Your task to perform on an android device: allow notifications from all sites in the chrome app Image 0: 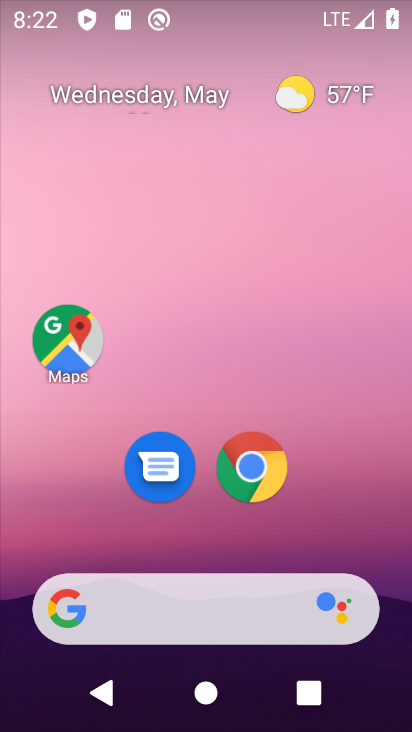
Step 0: drag from (283, 380) to (155, 10)
Your task to perform on an android device: allow notifications from all sites in the chrome app Image 1: 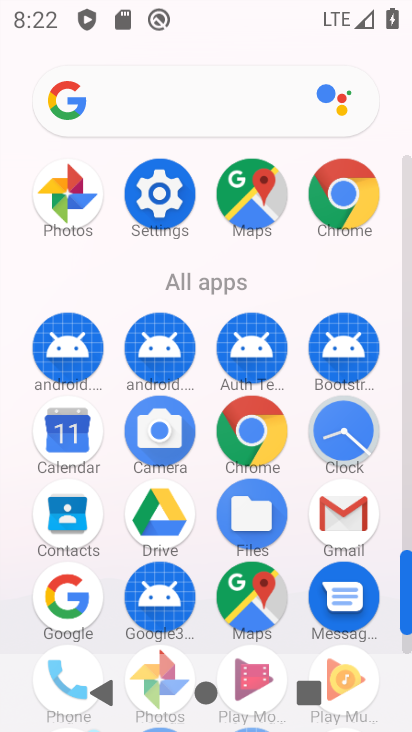
Step 1: drag from (235, 442) to (205, 66)
Your task to perform on an android device: allow notifications from all sites in the chrome app Image 2: 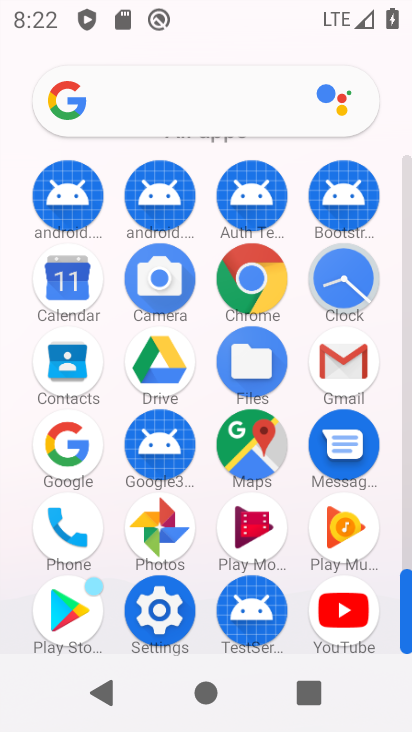
Step 2: drag from (243, 440) to (270, 42)
Your task to perform on an android device: allow notifications from all sites in the chrome app Image 3: 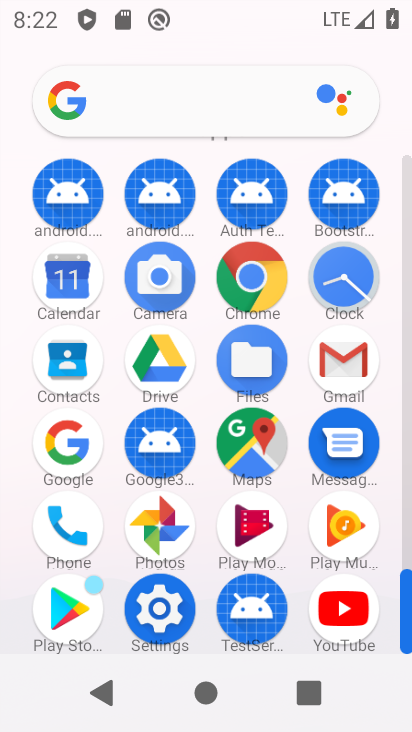
Step 3: drag from (182, 530) to (167, 322)
Your task to perform on an android device: allow notifications from all sites in the chrome app Image 4: 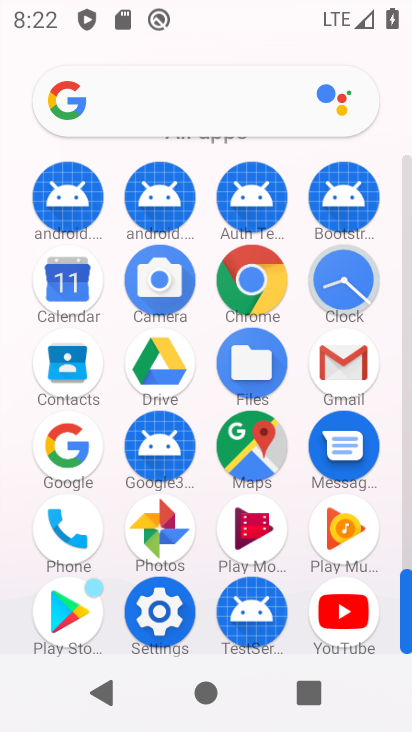
Step 4: drag from (237, 582) to (230, 8)
Your task to perform on an android device: allow notifications from all sites in the chrome app Image 5: 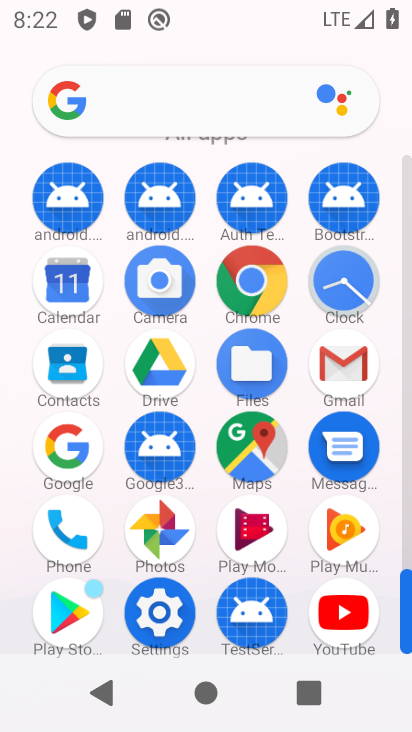
Step 5: drag from (217, 462) to (201, 67)
Your task to perform on an android device: allow notifications from all sites in the chrome app Image 6: 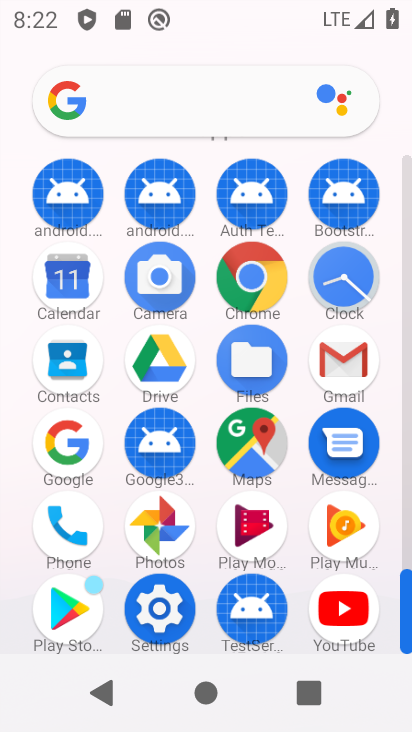
Step 6: drag from (215, 556) to (181, 69)
Your task to perform on an android device: allow notifications from all sites in the chrome app Image 7: 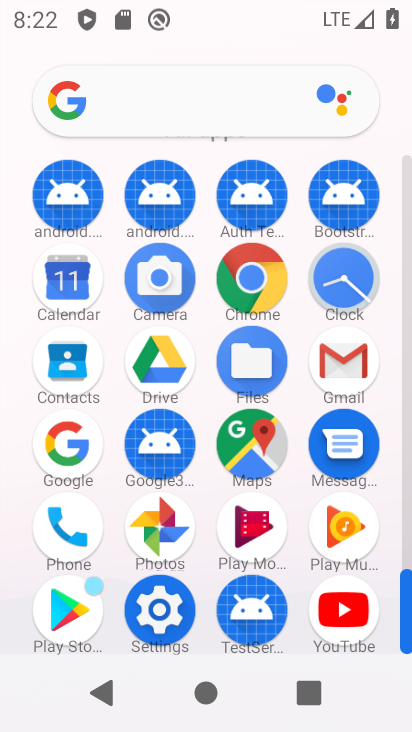
Step 7: drag from (218, 444) to (178, 137)
Your task to perform on an android device: allow notifications from all sites in the chrome app Image 8: 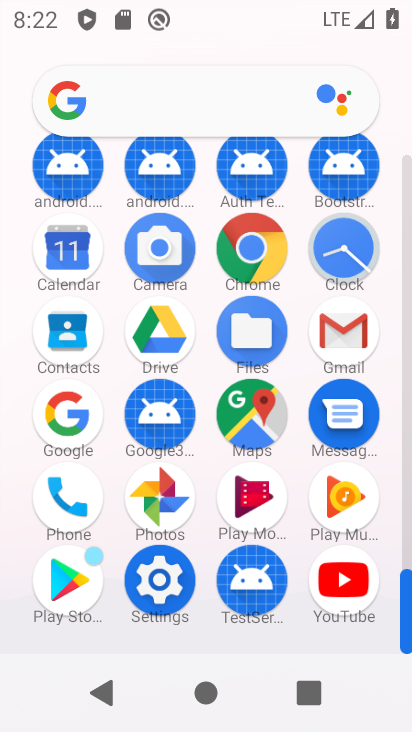
Step 8: drag from (252, 418) to (297, 3)
Your task to perform on an android device: allow notifications from all sites in the chrome app Image 9: 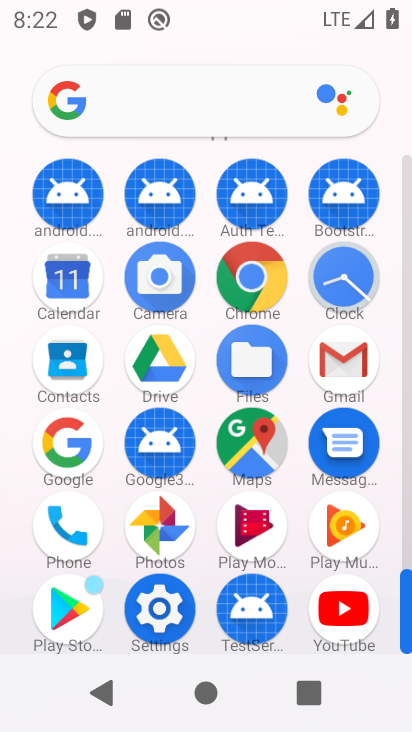
Step 9: click (262, 274)
Your task to perform on an android device: allow notifications from all sites in the chrome app Image 10: 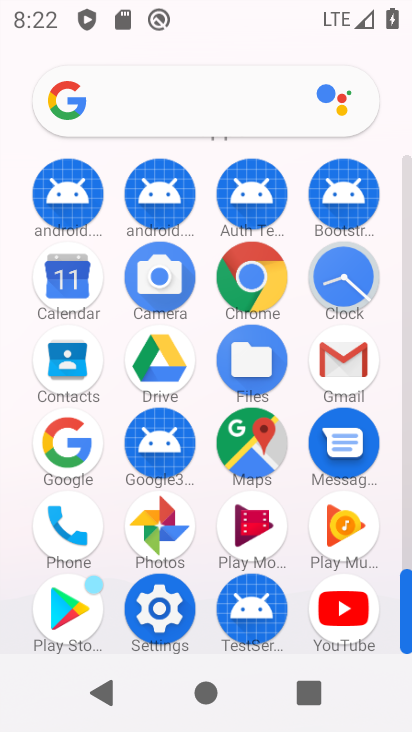
Step 10: click (262, 274)
Your task to perform on an android device: allow notifications from all sites in the chrome app Image 11: 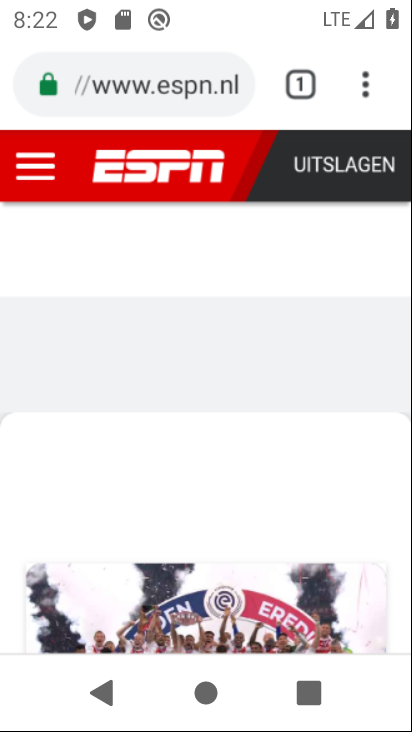
Step 11: click (262, 276)
Your task to perform on an android device: allow notifications from all sites in the chrome app Image 12: 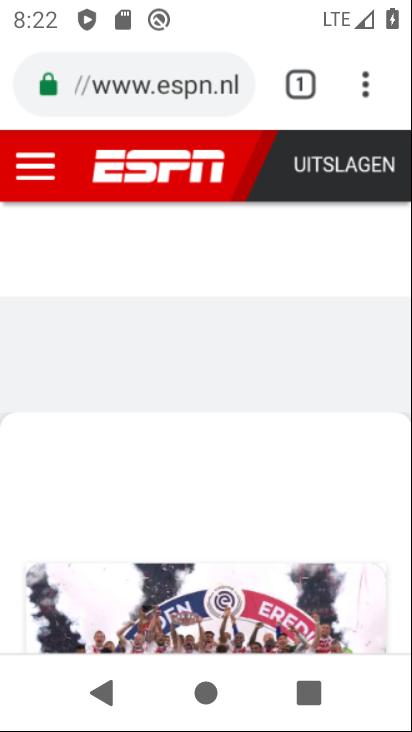
Step 12: drag from (358, 68) to (254, 568)
Your task to perform on an android device: allow notifications from all sites in the chrome app Image 13: 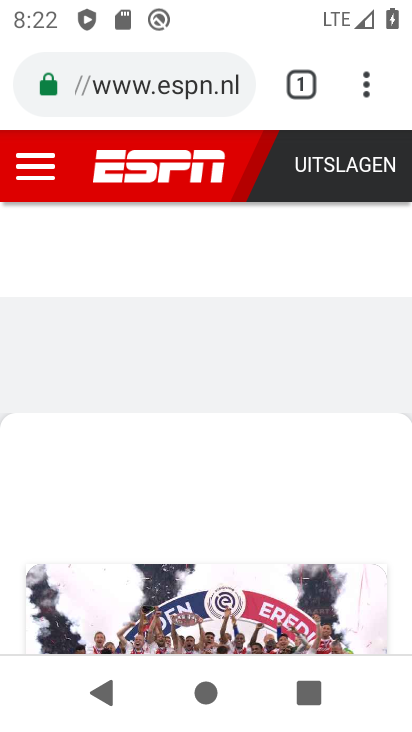
Step 13: drag from (223, 478) to (176, 37)
Your task to perform on an android device: allow notifications from all sites in the chrome app Image 14: 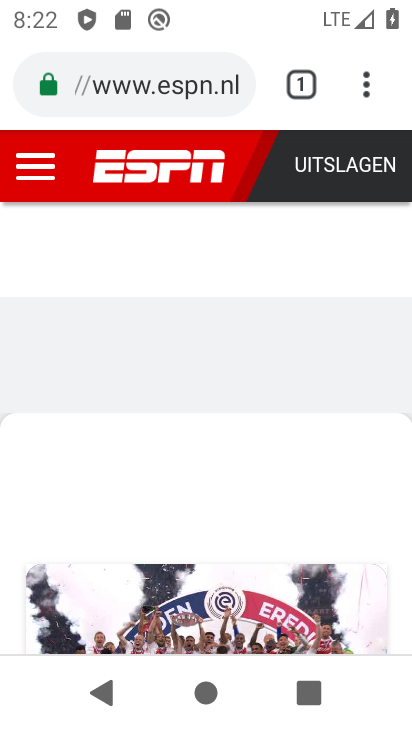
Step 14: drag from (216, 474) to (167, 9)
Your task to perform on an android device: allow notifications from all sites in the chrome app Image 15: 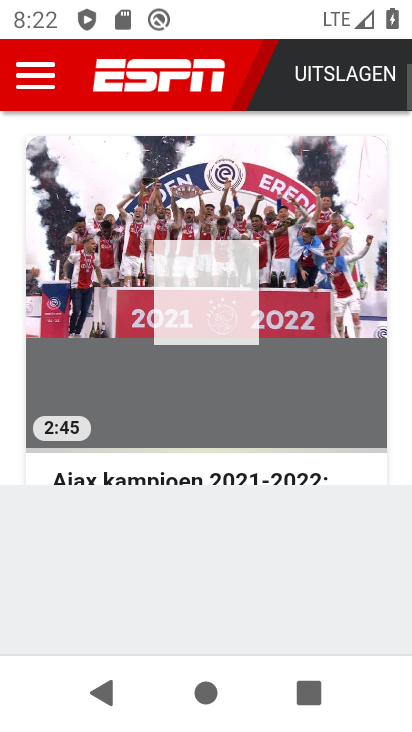
Step 15: drag from (220, 495) to (120, 52)
Your task to perform on an android device: allow notifications from all sites in the chrome app Image 16: 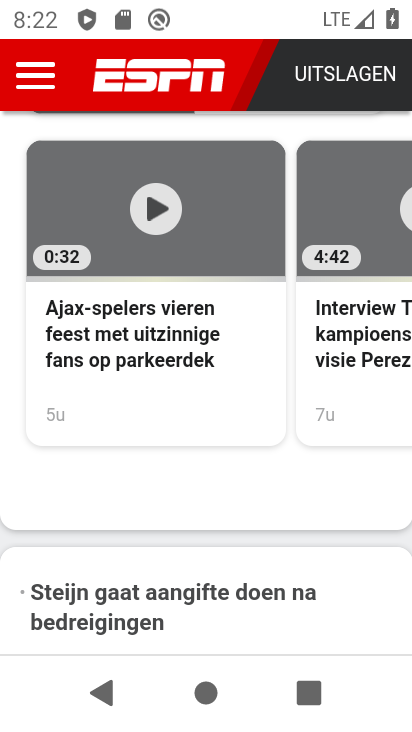
Step 16: press back button
Your task to perform on an android device: allow notifications from all sites in the chrome app Image 17: 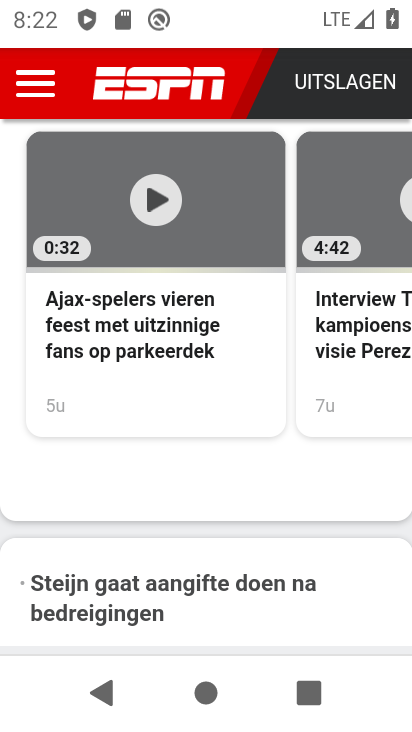
Step 17: press back button
Your task to perform on an android device: allow notifications from all sites in the chrome app Image 18: 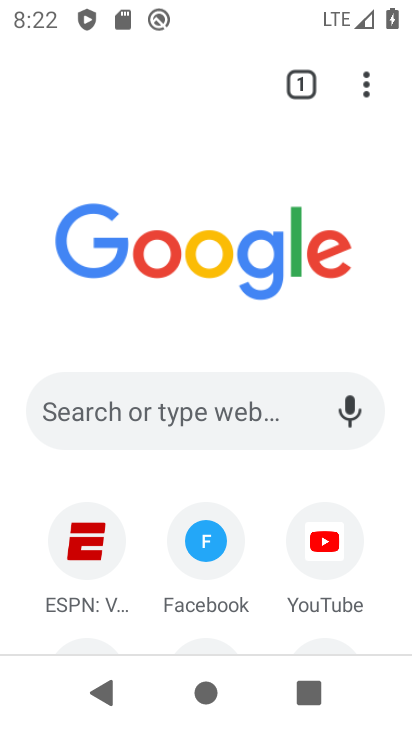
Step 18: press back button
Your task to perform on an android device: allow notifications from all sites in the chrome app Image 19: 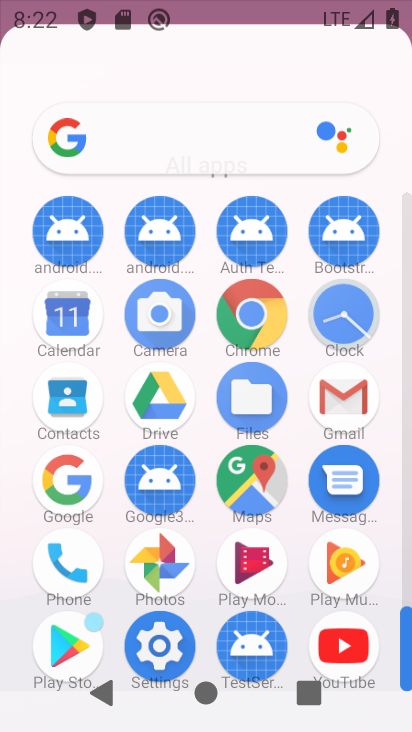
Step 19: press back button
Your task to perform on an android device: allow notifications from all sites in the chrome app Image 20: 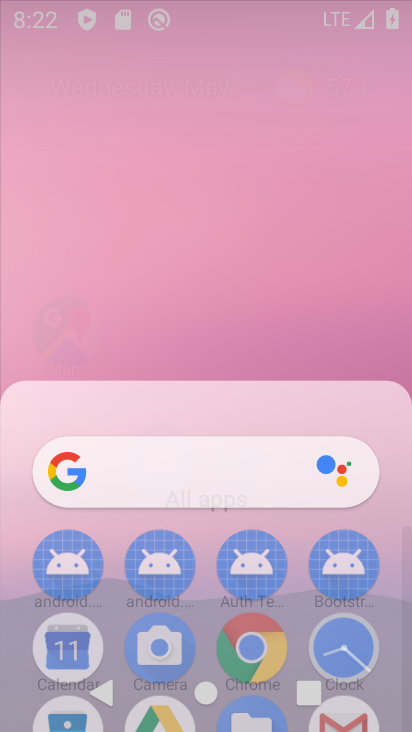
Step 20: click (357, 84)
Your task to perform on an android device: allow notifications from all sites in the chrome app Image 21: 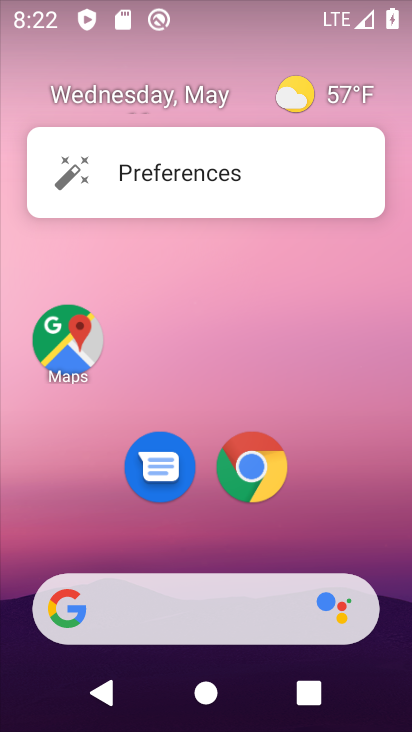
Step 21: click (263, 357)
Your task to perform on an android device: allow notifications from all sites in the chrome app Image 22: 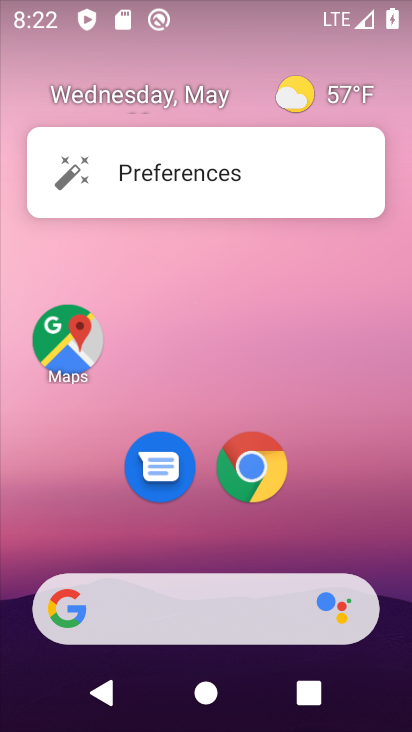
Step 22: drag from (263, 357) to (246, 313)
Your task to perform on an android device: allow notifications from all sites in the chrome app Image 23: 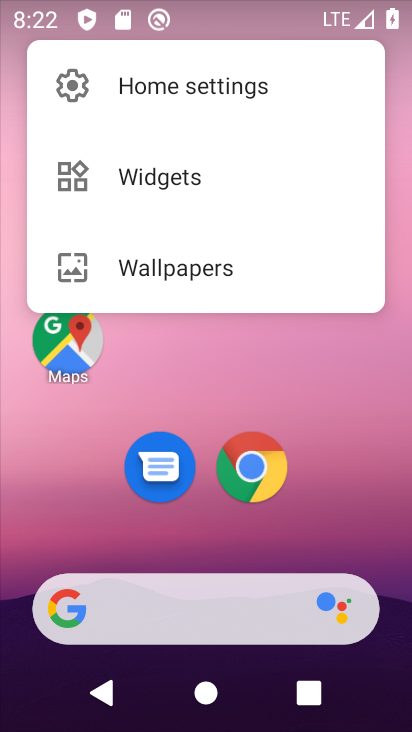
Step 23: click (305, 375)
Your task to perform on an android device: allow notifications from all sites in the chrome app Image 24: 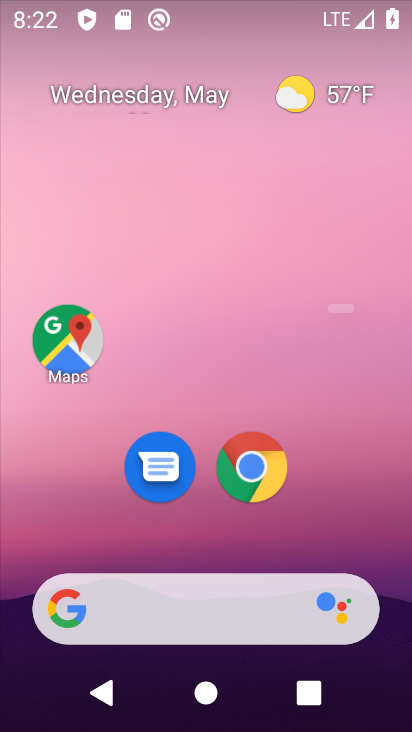
Step 24: click (300, 367)
Your task to perform on an android device: allow notifications from all sites in the chrome app Image 25: 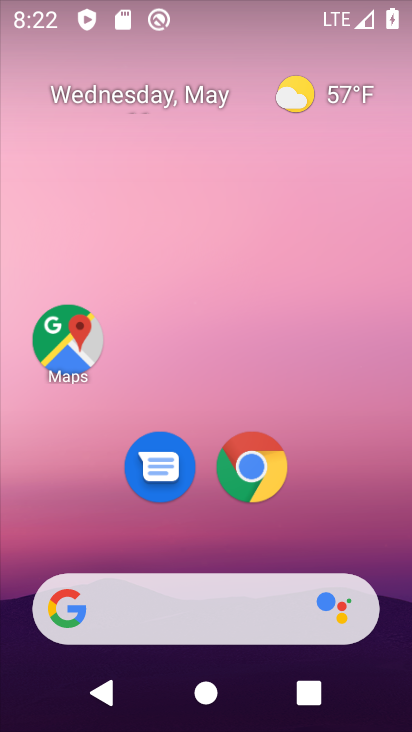
Step 25: click (300, 367)
Your task to perform on an android device: allow notifications from all sites in the chrome app Image 26: 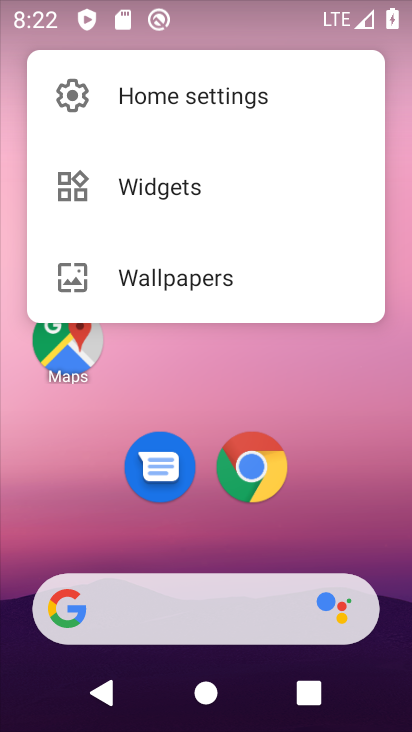
Step 26: click (410, 206)
Your task to perform on an android device: allow notifications from all sites in the chrome app Image 27: 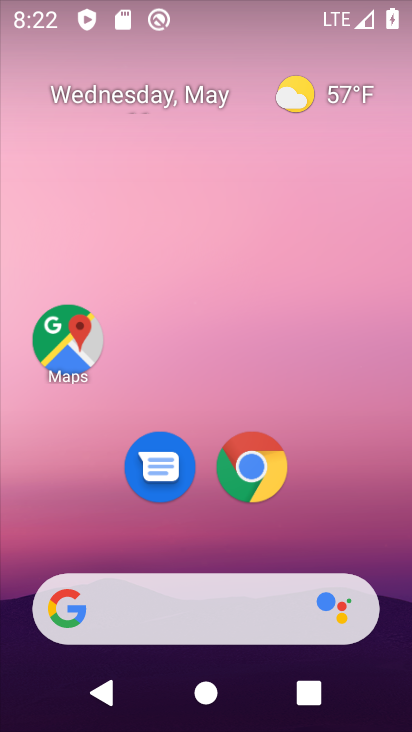
Step 27: drag from (307, 540) to (191, 7)
Your task to perform on an android device: allow notifications from all sites in the chrome app Image 28: 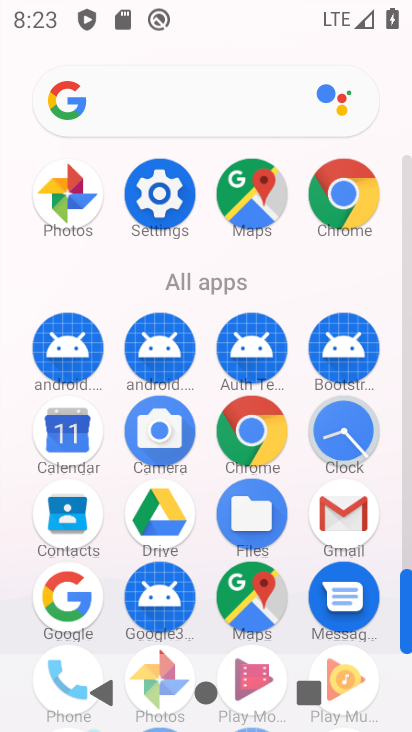
Step 28: click (346, 195)
Your task to perform on an android device: allow notifications from all sites in the chrome app Image 29: 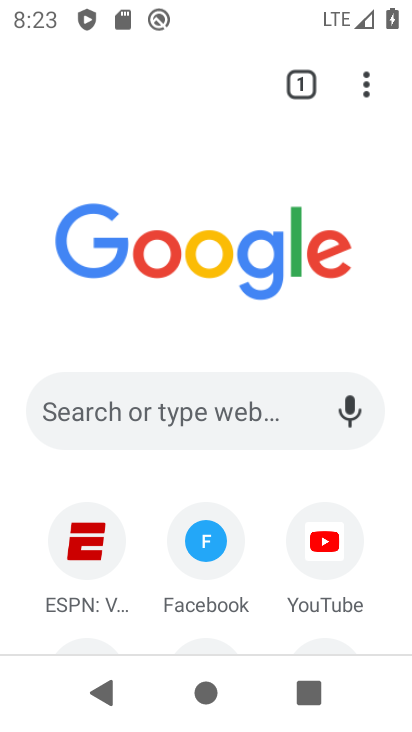
Step 29: drag from (365, 88) to (90, 519)
Your task to perform on an android device: allow notifications from all sites in the chrome app Image 30: 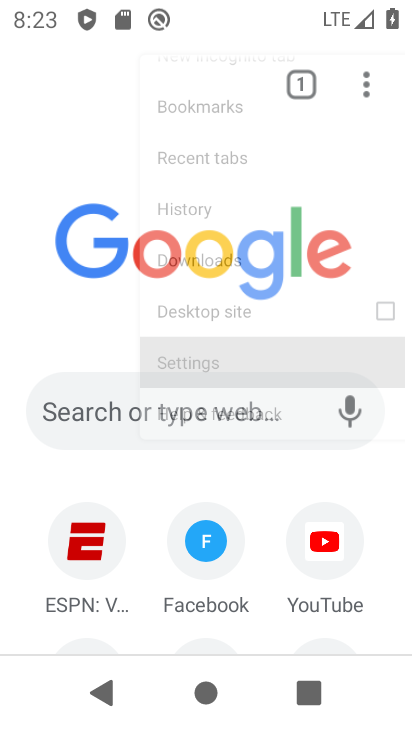
Step 30: click (91, 518)
Your task to perform on an android device: allow notifications from all sites in the chrome app Image 31: 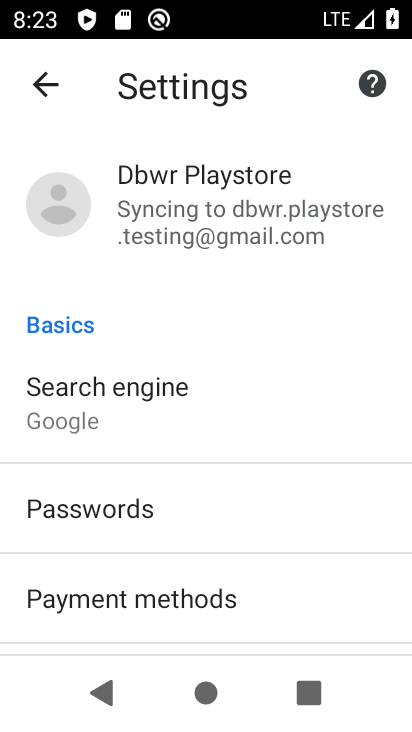
Step 31: task complete